Your task to perform on an android device: Show me some nice wallpapers for my computer Image 0: 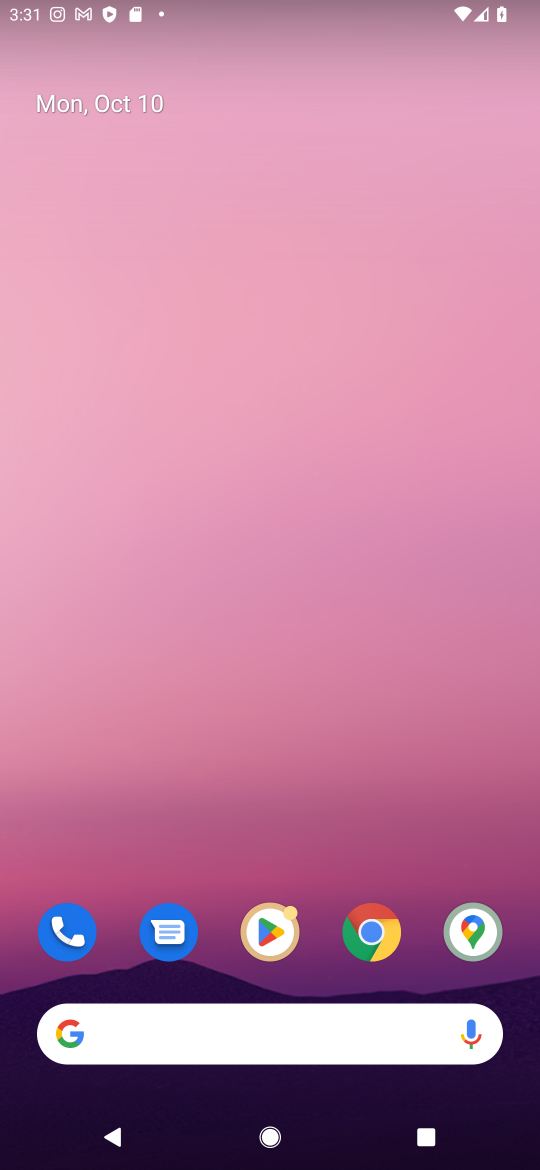
Step 0: click (334, 1036)
Your task to perform on an android device: Show me some nice wallpapers for my computer Image 1: 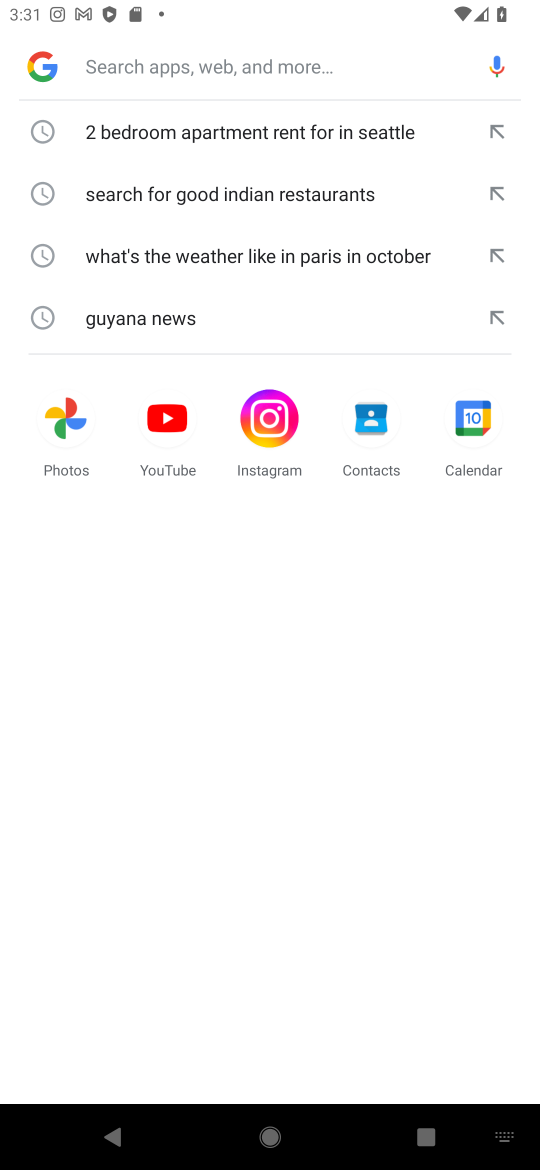
Step 1: press enter
Your task to perform on an android device: Show me some nice wallpapers for my computer Image 2: 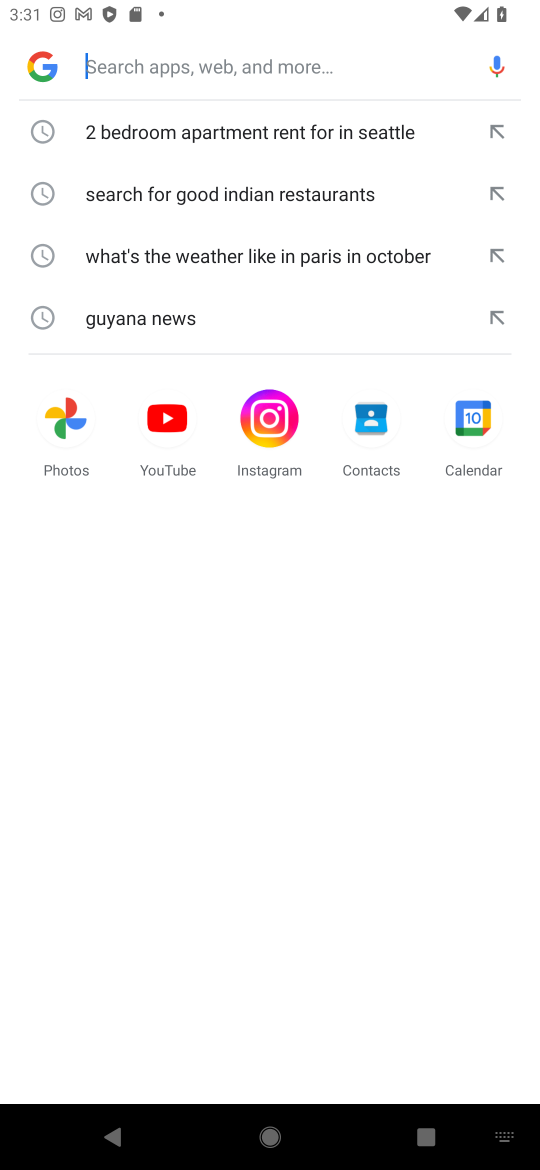
Step 2: type "Show me some nice wallpapers for my computer"
Your task to perform on an android device: Show me some nice wallpapers for my computer Image 3: 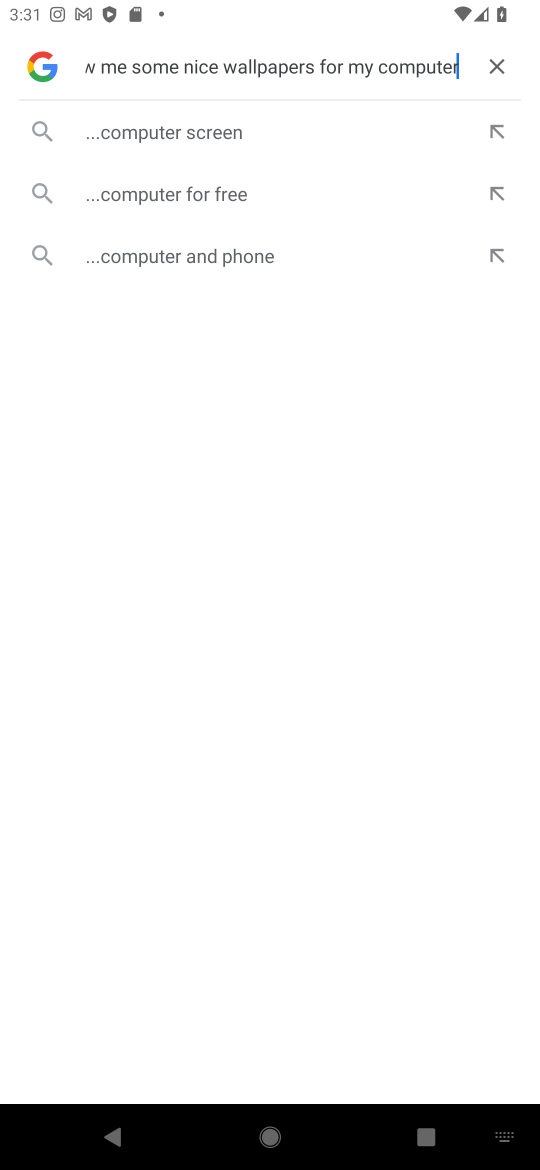
Step 3: press enter
Your task to perform on an android device: Show me some nice wallpapers for my computer Image 4: 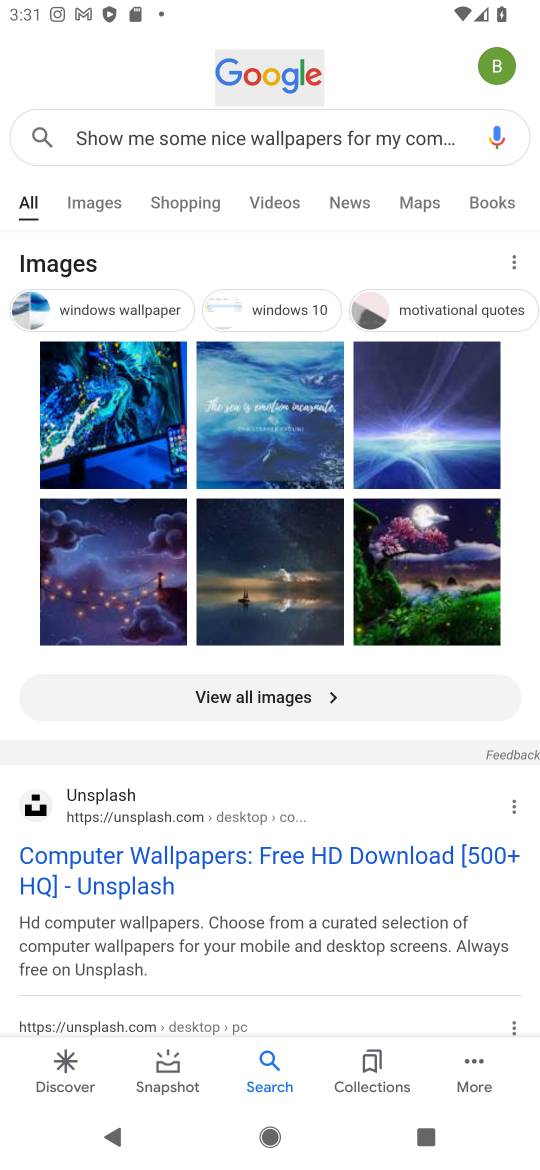
Step 4: click (272, 698)
Your task to perform on an android device: Show me some nice wallpapers for my computer Image 5: 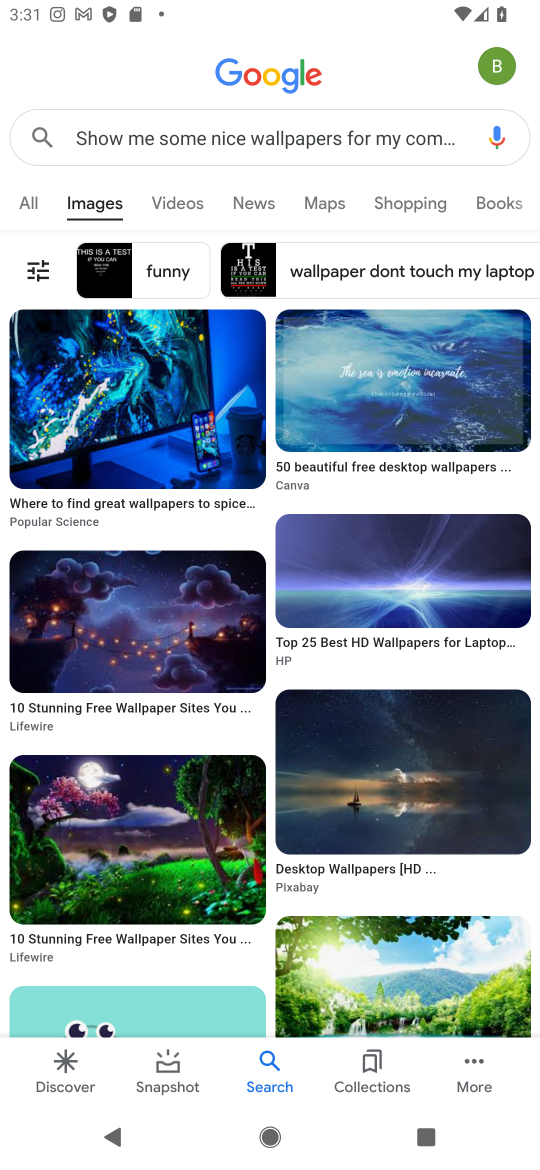
Step 5: task complete